Your task to perform on an android device: check the backup settings in the google photos Image 0: 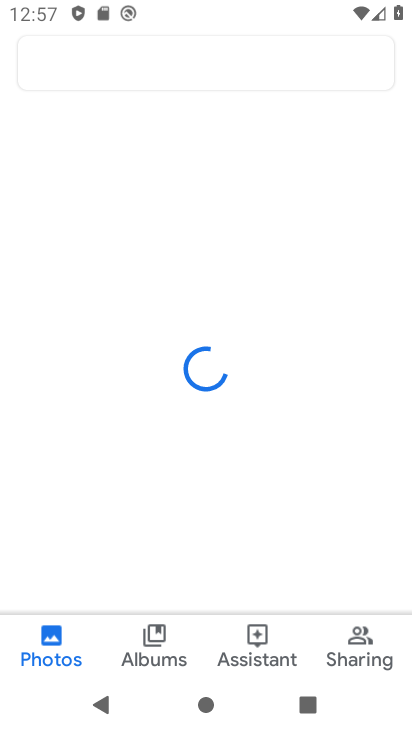
Step 0: press home button
Your task to perform on an android device: check the backup settings in the google photos Image 1: 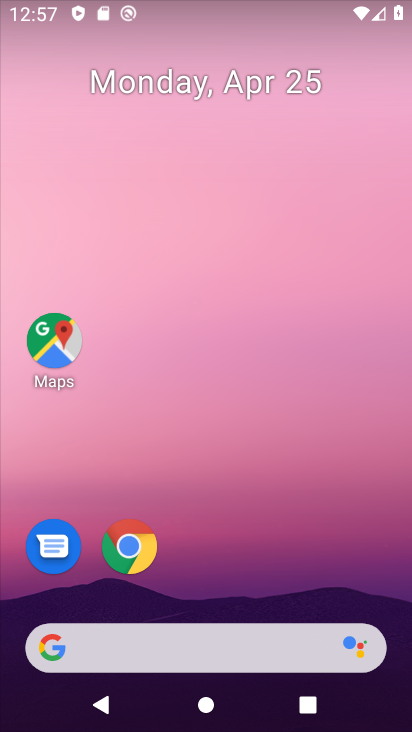
Step 1: drag from (205, 616) to (280, 21)
Your task to perform on an android device: check the backup settings in the google photos Image 2: 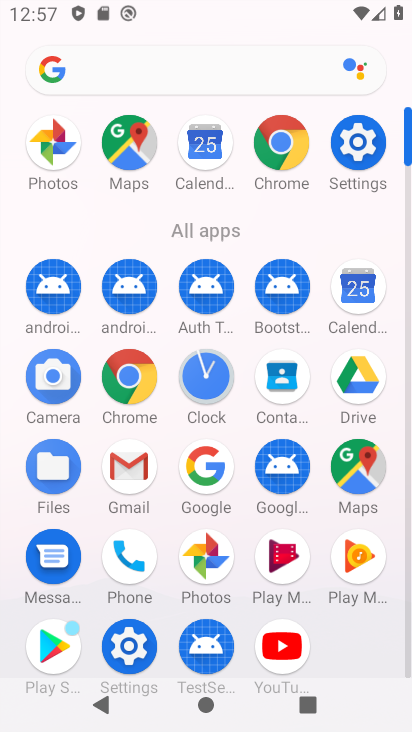
Step 2: click (218, 544)
Your task to perform on an android device: check the backup settings in the google photos Image 3: 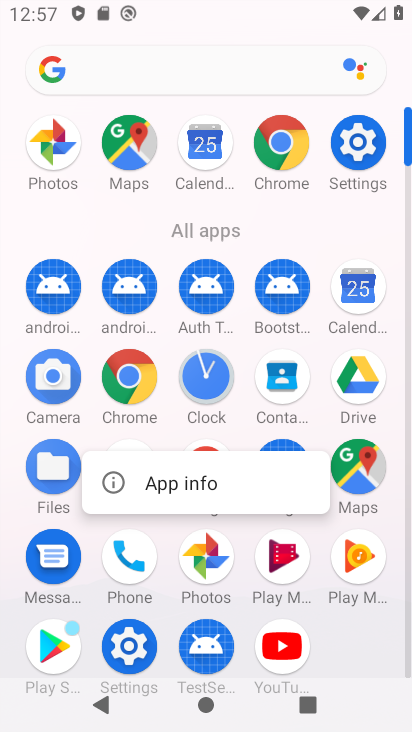
Step 3: click (211, 555)
Your task to perform on an android device: check the backup settings in the google photos Image 4: 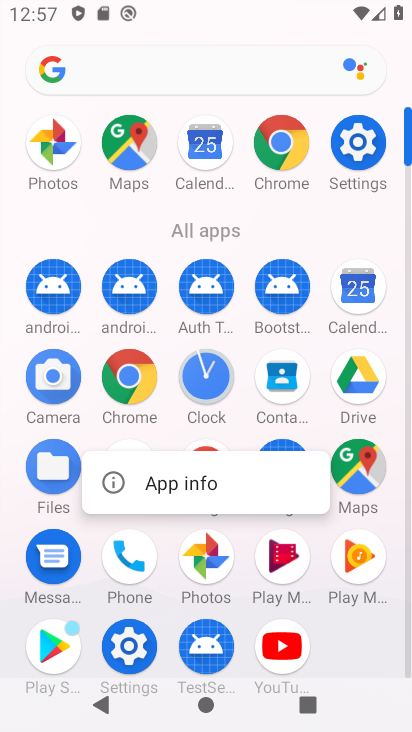
Step 4: click (211, 569)
Your task to perform on an android device: check the backup settings in the google photos Image 5: 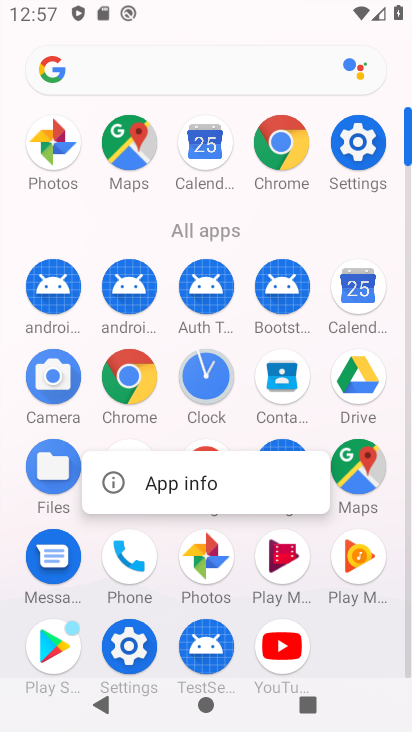
Step 5: click (211, 569)
Your task to perform on an android device: check the backup settings in the google photos Image 6: 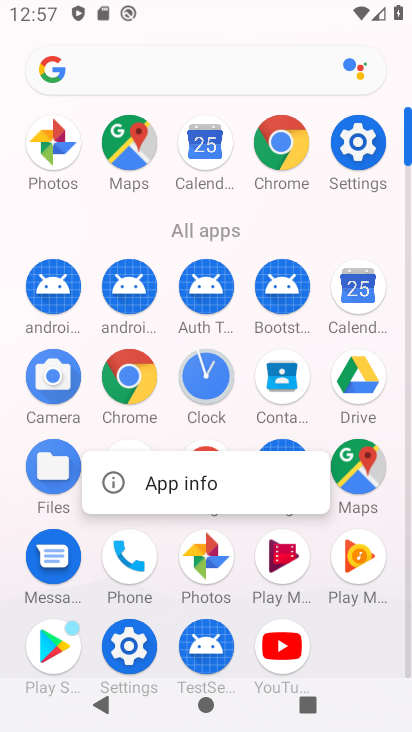
Step 6: click (210, 555)
Your task to perform on an android device: check the backup settings in the google photos Image 7: 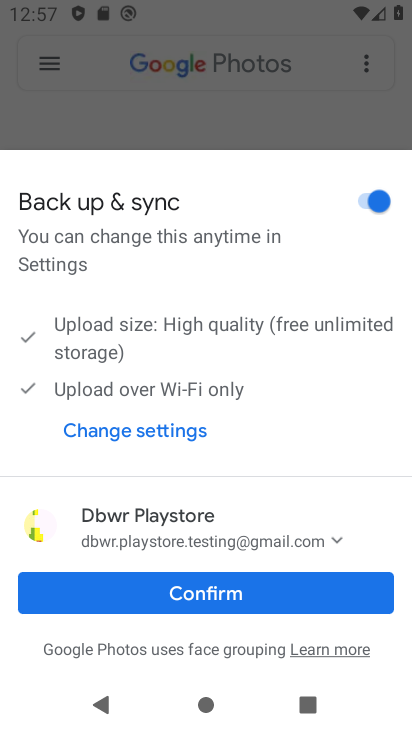
Step 7: click (162, 425)
Your task to perform on an android device: check the backup settings in the google photos Image 8: 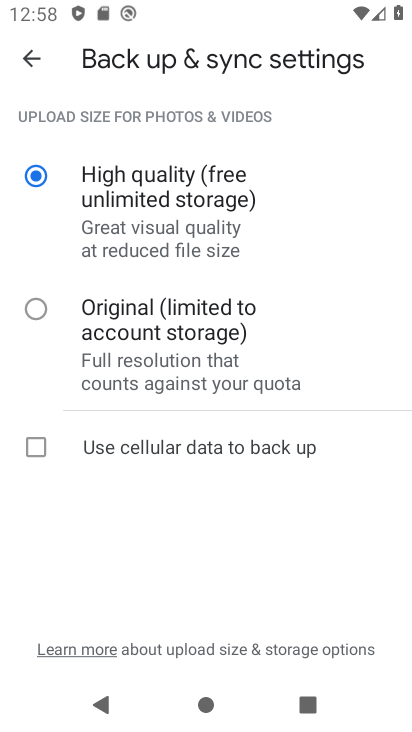
Step 8: task complete